Your task to perform on an android device: What is the recent news? Image 0: 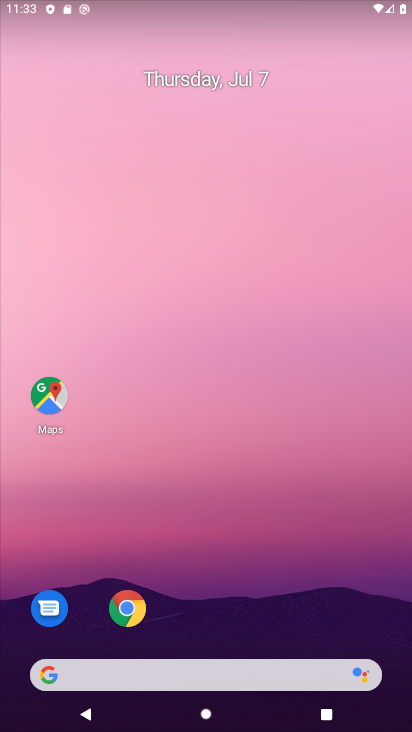
Step 0: drag from (304, 626) to (219, 67)
Your task to perform on an android device: What is the recent news? Image 1: 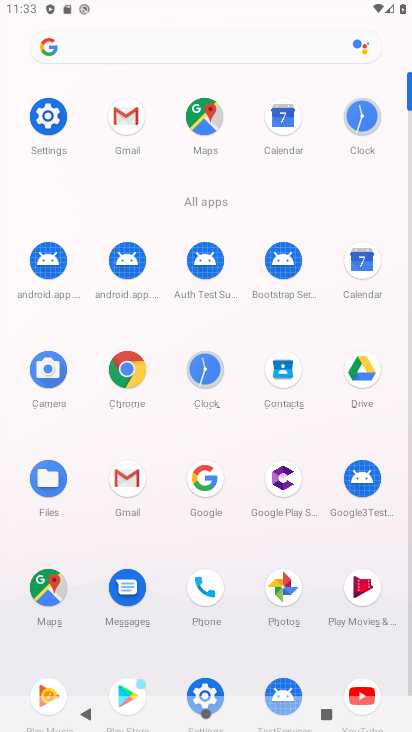
Step 1: click (212, 60)
Your task to perform on an android device: What is the recent news? Image 2: 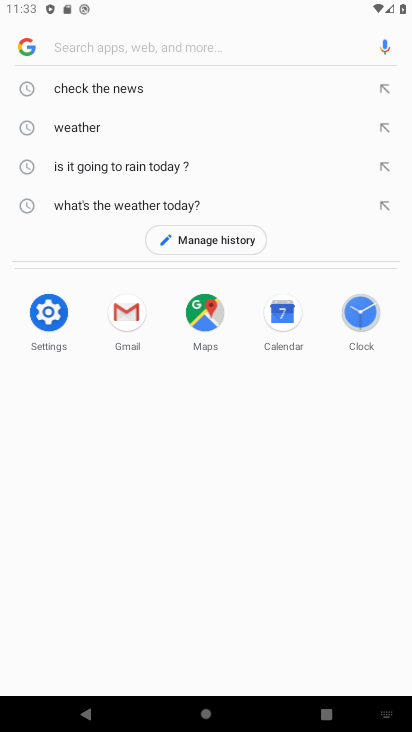
Step 2: click (156, 98)
Your task to perform on an android device: What is the recent news? Image 3: 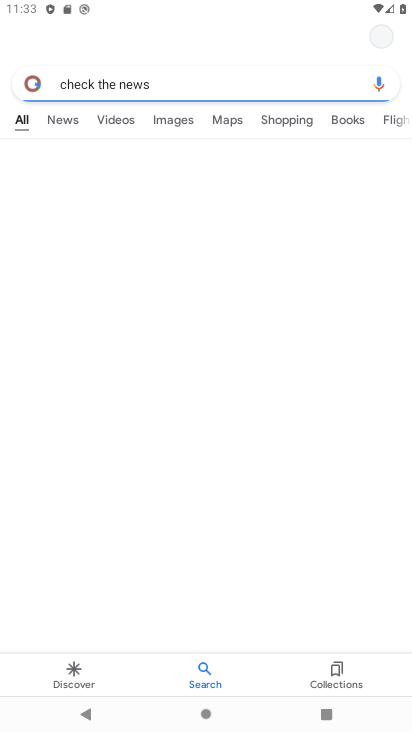
Step 3: task complete